Your task to perform on an android device: turn on notifications settings in the gmail app Image 0: 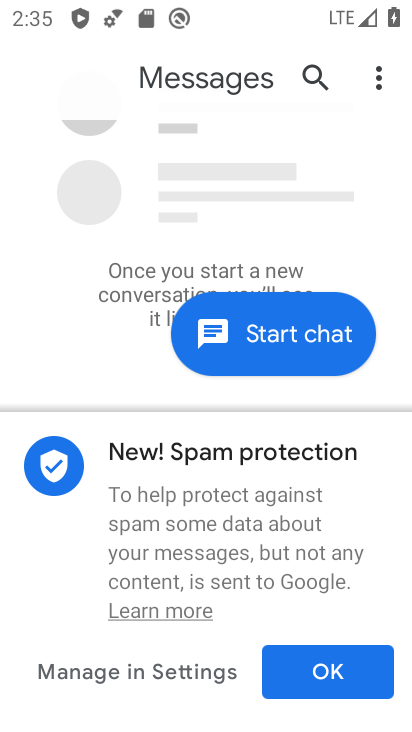
Step 0: press home button
Your task to perform on an android device: turn on notifications settings in the gmail app Image 1: 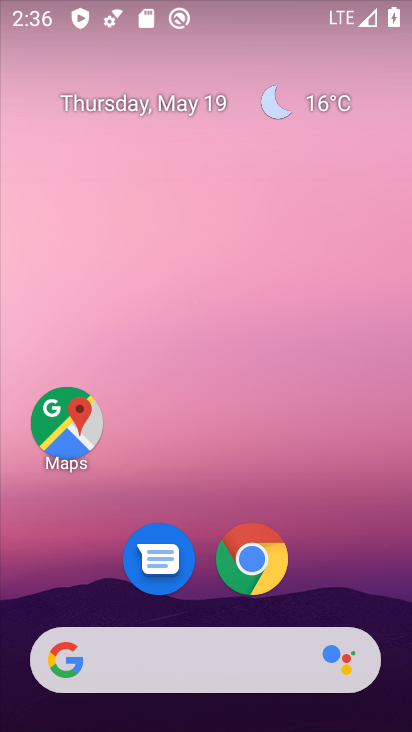
Step 1: drag from (206, 608) to (212, 230)
Your task to perform on an android device: turn on notifications settings in the gmail app Image 2: 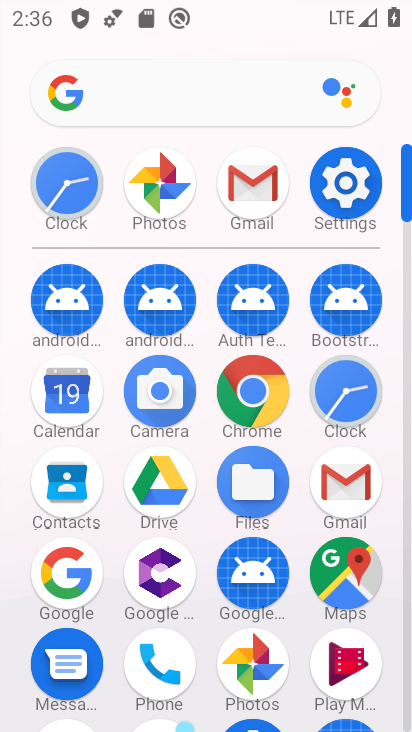
Step 2: click (235, 207)
Your task to perform on an android device: turn on notifications settings in the gmail app Image 3: 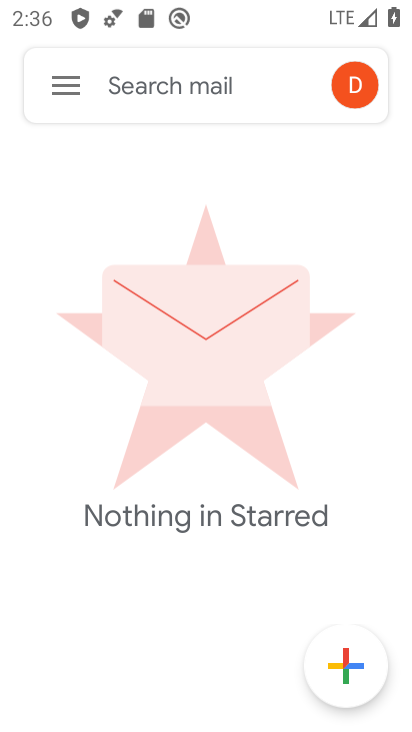
Step 3: click (68, 98)
Your task to perform on an android device: turn on notifications settings in the gmail app Image 4: 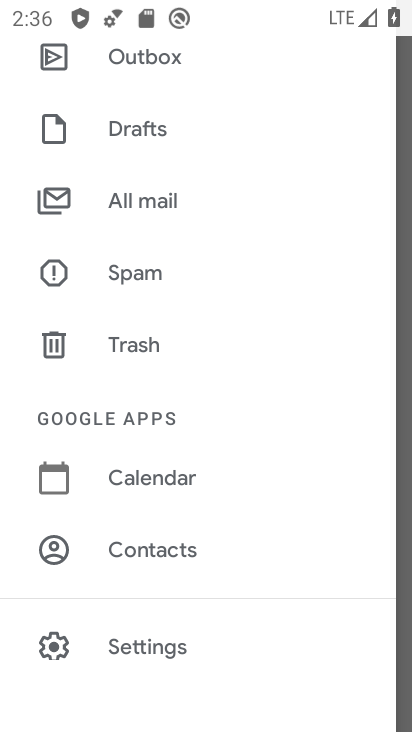
Step 4: click (164, 639)
Your task to perform on an android device: turn on notifications settings in the gmail app Image 5: 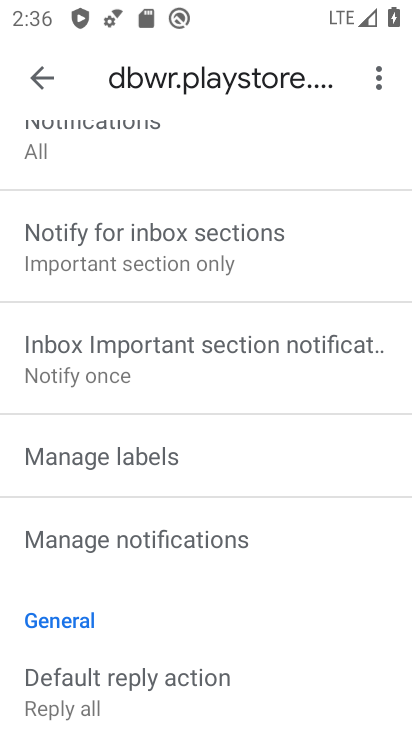
Step 5: click (183, 539)
Your task to perform on an android device: turn on notifications settings in the gmail app Image 6: 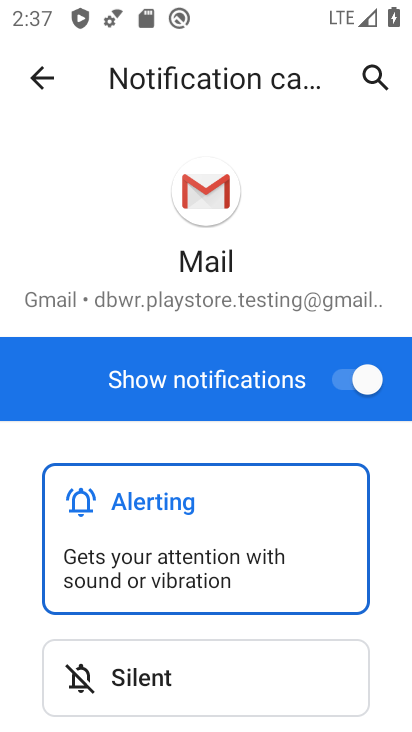
Step 6: task complete